Your task to perform on an android device: Go to calendar. Show me events next week Image 0: 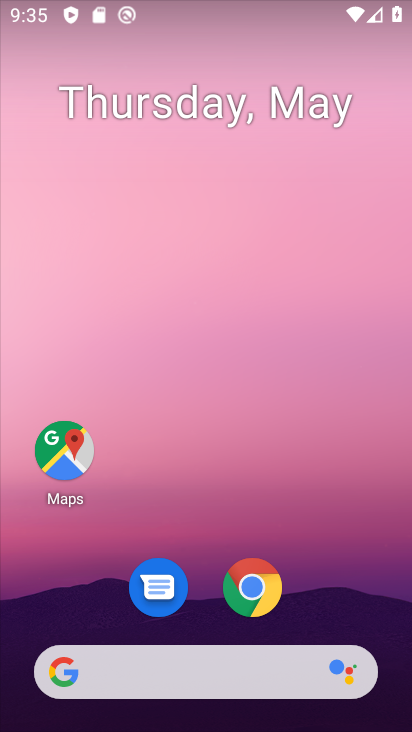
Step 0: drag from (386, 617) to (304, 101)
Your task to perform on an android device: Go to calendar. Show me events next week Image 1: 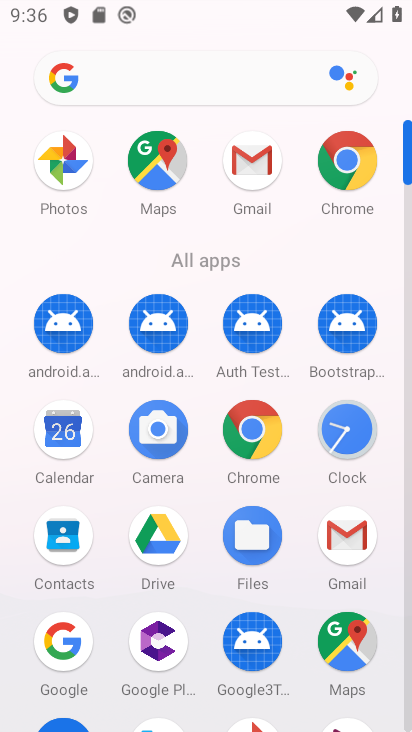
Step 1: click (42, 426)
Your task to perform on an android device: Go to calendar. Show me events next week Image 2: 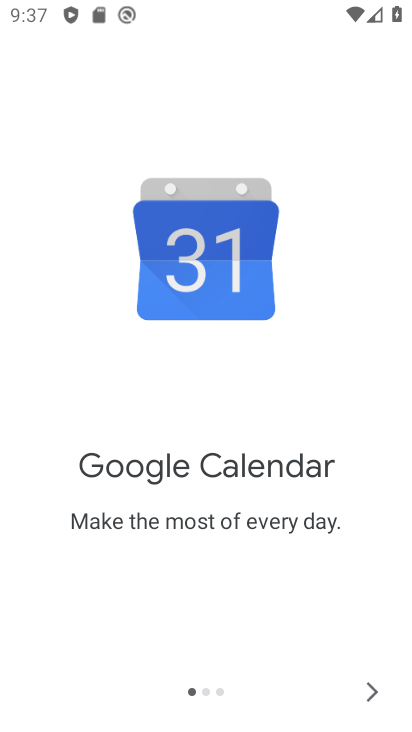
Step 2: click (364, 685)
Your task to perform on an android device: Go to calendar. Show me events next week Image 3: 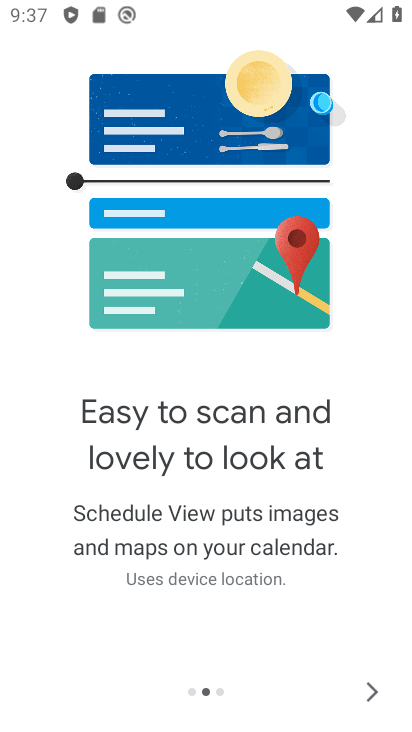
Step 3: click (364, 685)
Your task to perform on an android device: Go to calendar. Show me events next week Image 4: 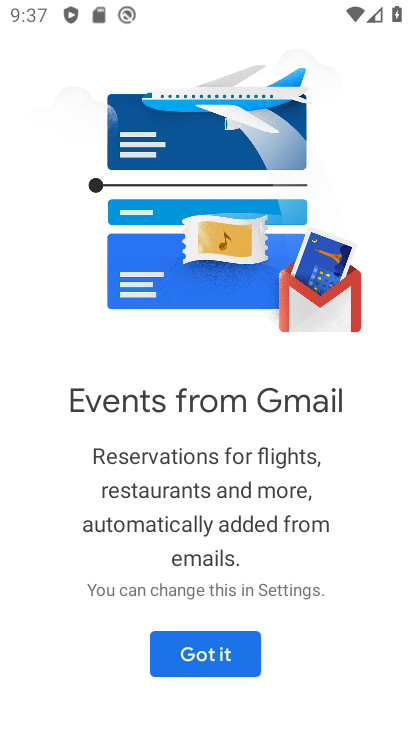
Step 4: click (193, 649)
Your task to perform on an android device: Go to calendar. Show me events next week Image 5: 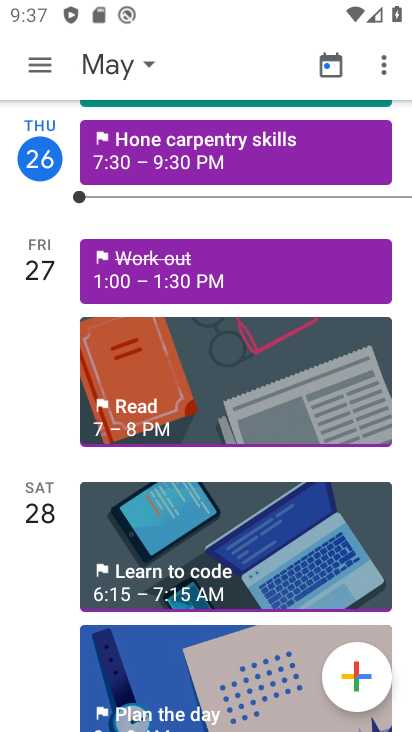
Step 5: task complete